Your task to perform on an android device: Go to Wikipedia Image 0: 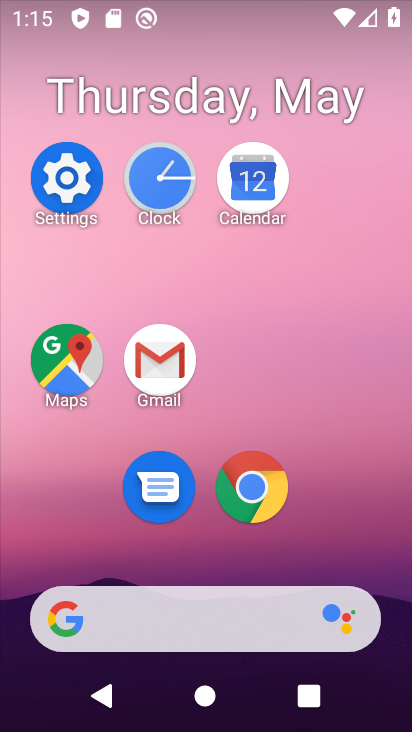
Step 0: click (251, 483)
Your task to perform on an android device: Go to Wikipedia Image 1: 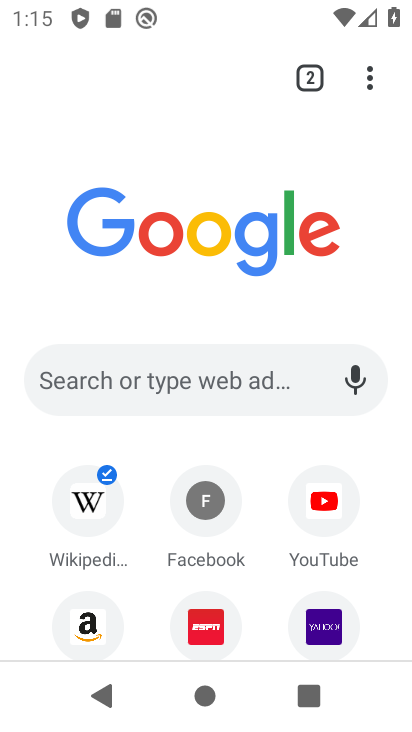
Step 1: click (93, 506)
Your task to perform on an android device: Go to Wikipedia Image 2: 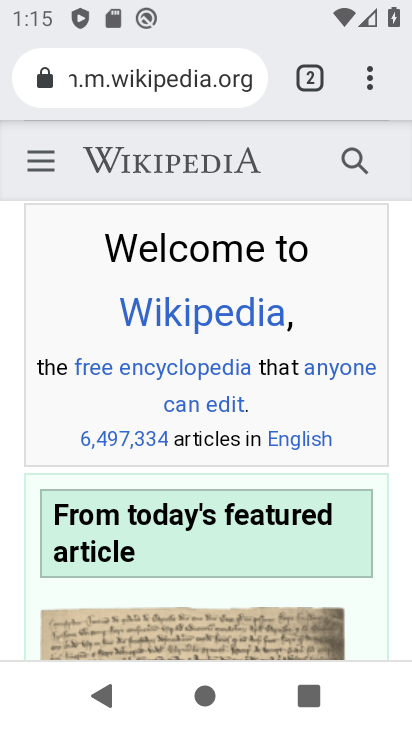
Step 2: task complete